Your task to perform on an android device: Clear the cart on target. Search for "macbook air" on target, select the first entry, add it to the cart, then select checkout. Image 0: 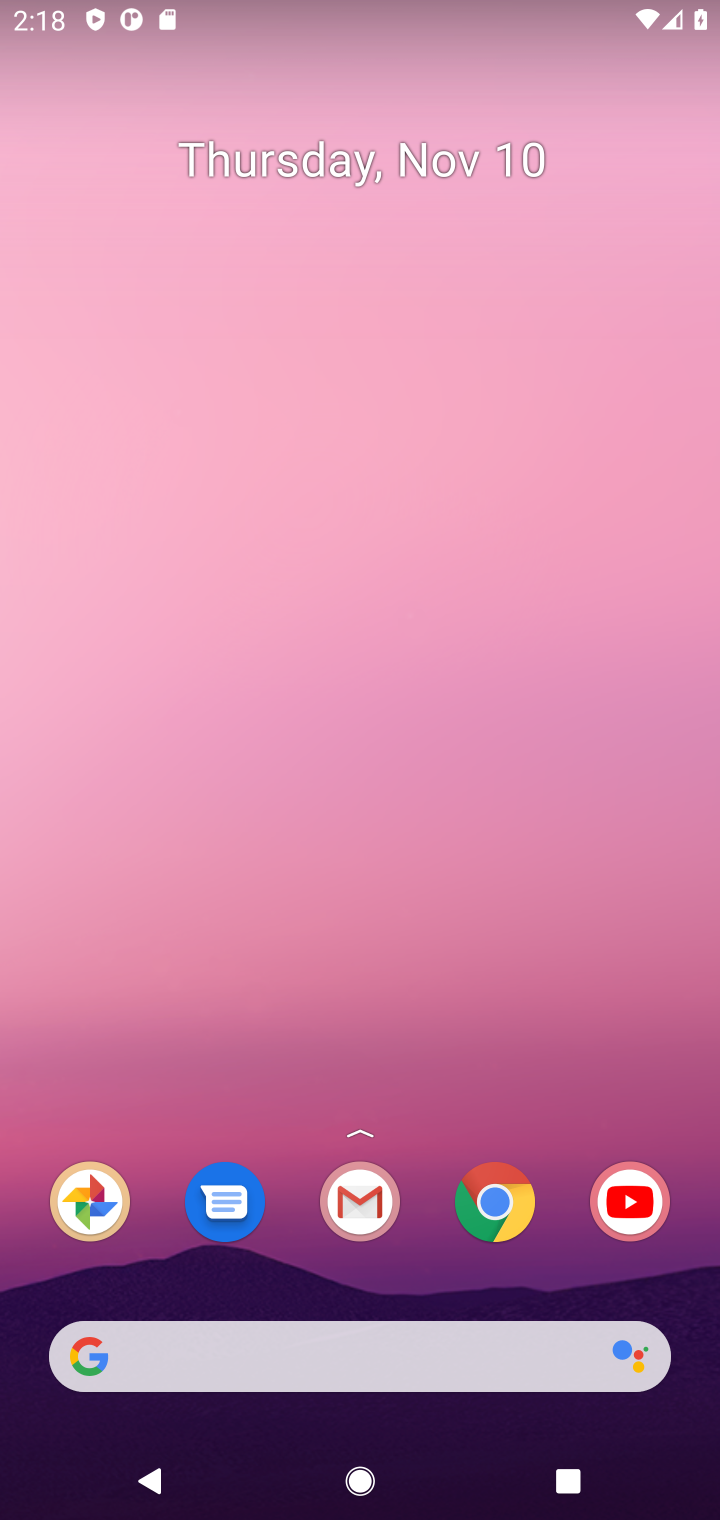
Step 0: click (483, 1211)
Your task to perform on an android device: Clear the cart on target. Search for "macbook air" on target, select the first entry, add it to the cart, then select checkout. Image 1: 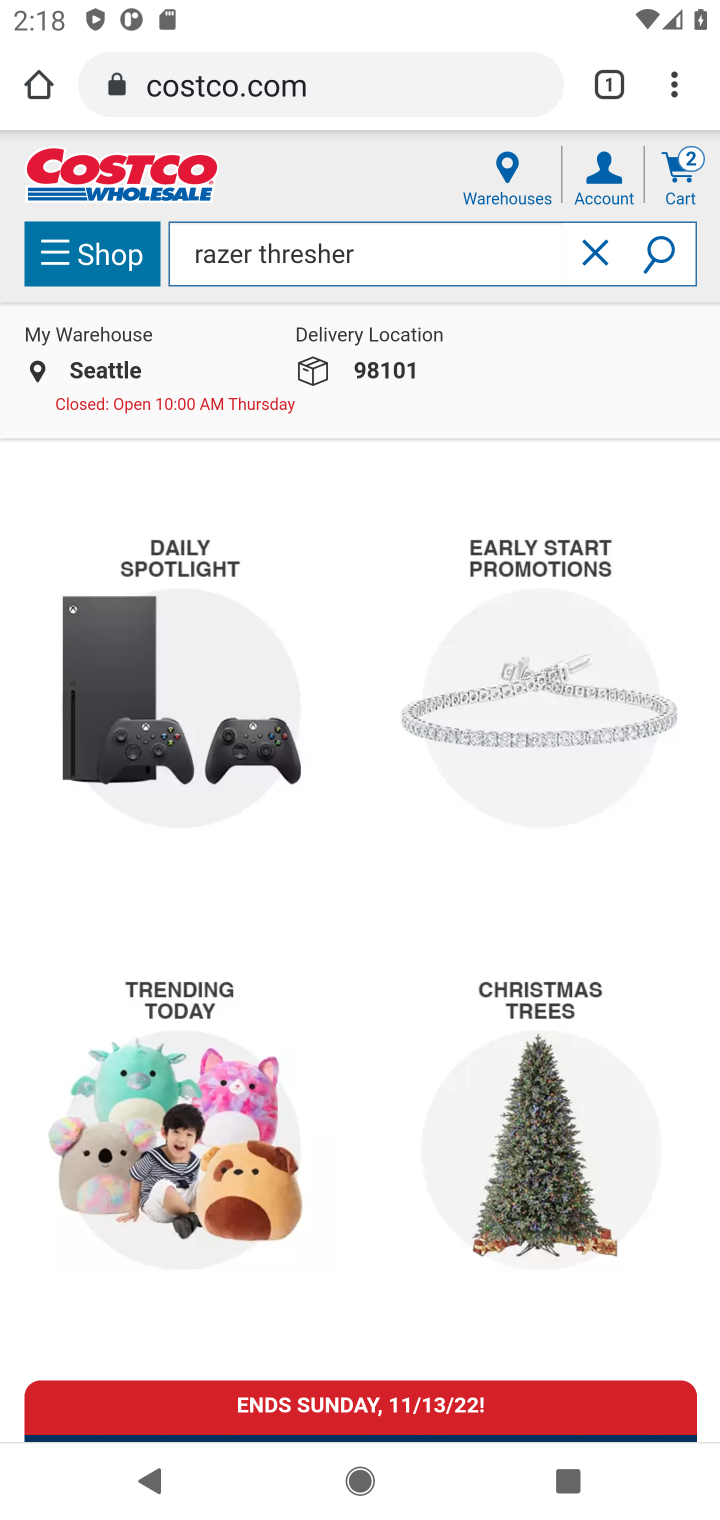
Step 1: click (312, 84)
Your task to perform on an android device: Clear the cart on target. Search for "macbook air" on target, select the first entry, add it to the cart, then select checkout. Image 2: 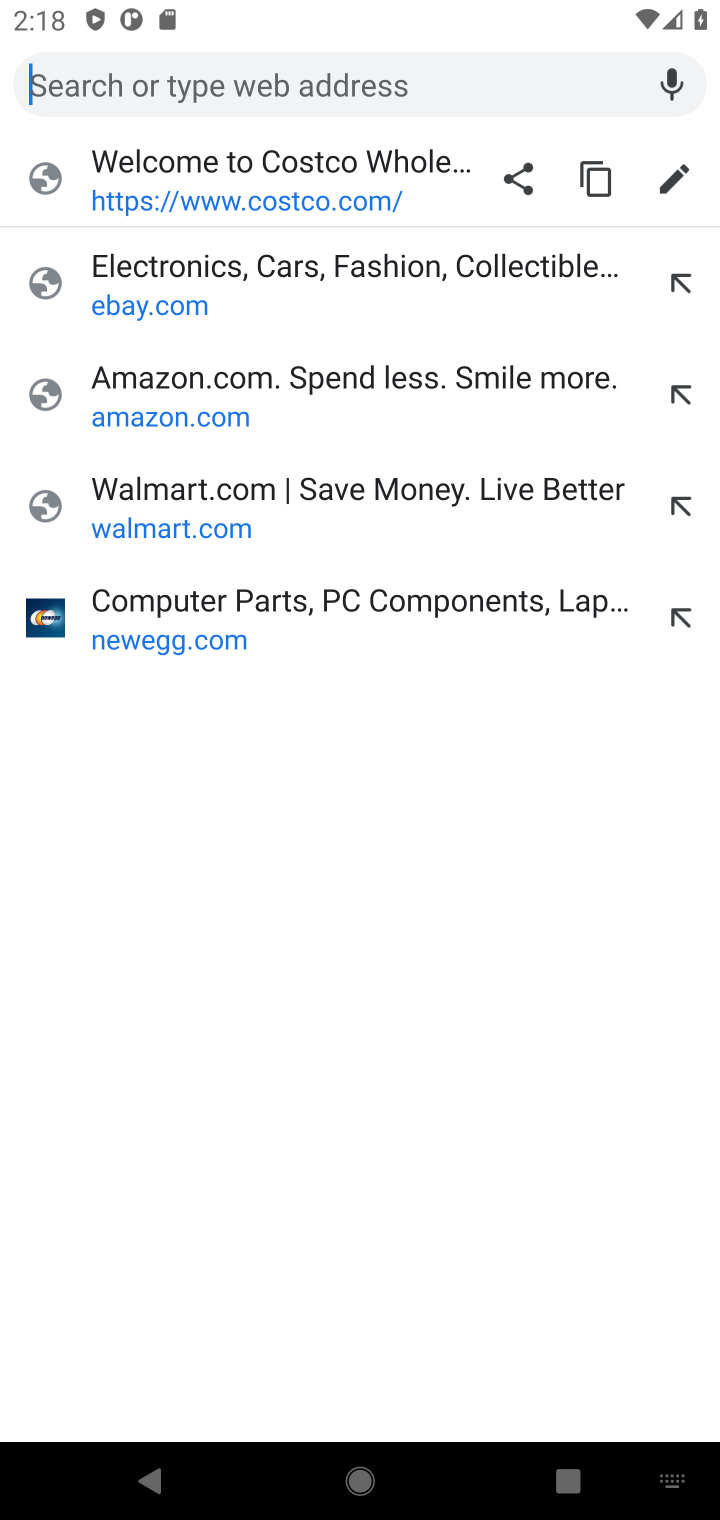
Step 2: type "target"
Your task to perform on an android device: Clear the cart on target. Search for "macbook air" on target, select the first entry, add it to the cart, then select checkout. Image 3: 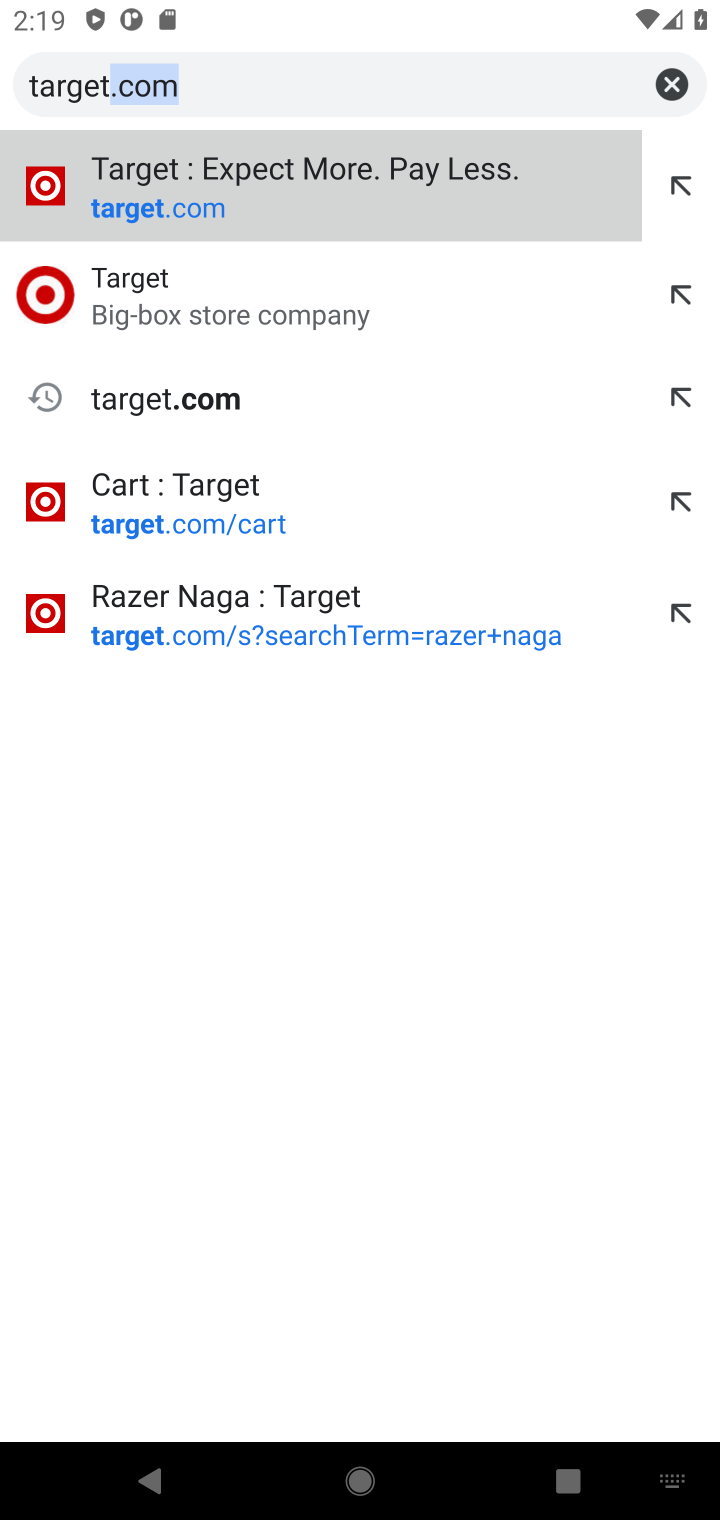
Step 3: click (208, 309)
Your task to perform on an android device: Clear the cart on target. Search for "macbook air" on target, select the first entry, add it to the cart, then select checkout. Image 4: 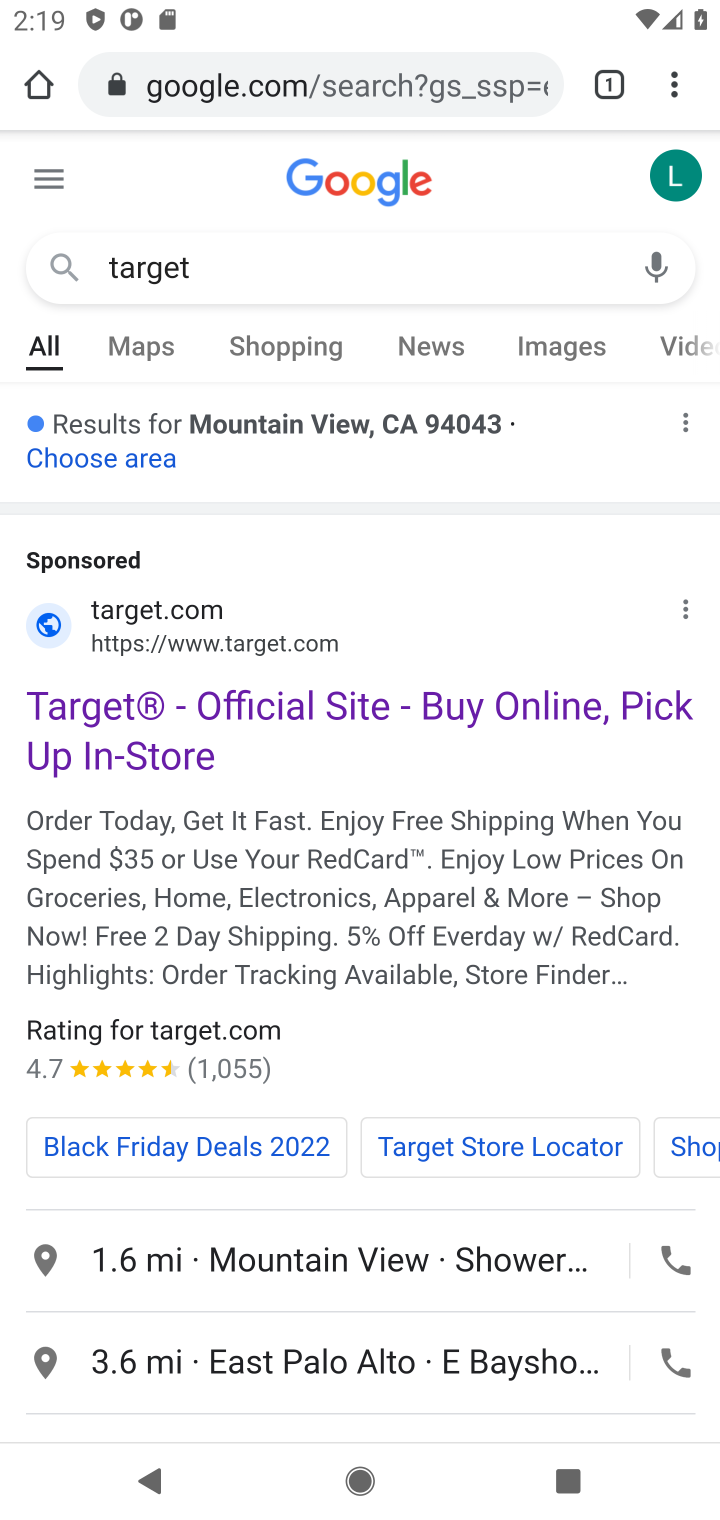
Step 4: click (230, 635)
Your task to perform on an android device: Clear the cart on target. Search for "macbook air" on target, select the first entry, add it to the cart, then select checkout. Image 5: 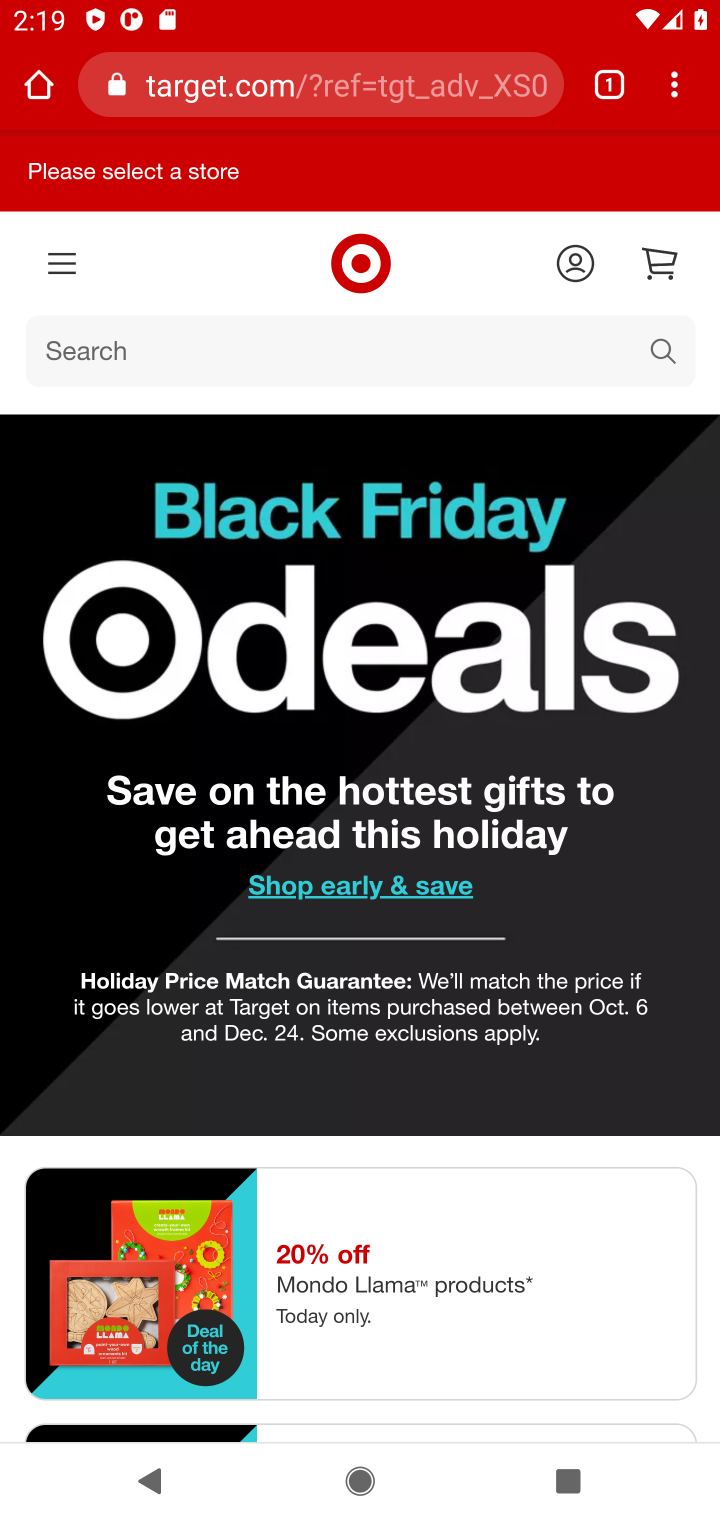
Step 5: click (662, 261)
Your task to perform on an android device: Clear the cart on target. Search for "macbook air" on target, select the first entry, add it to the cart, then select checkout. Image 6: 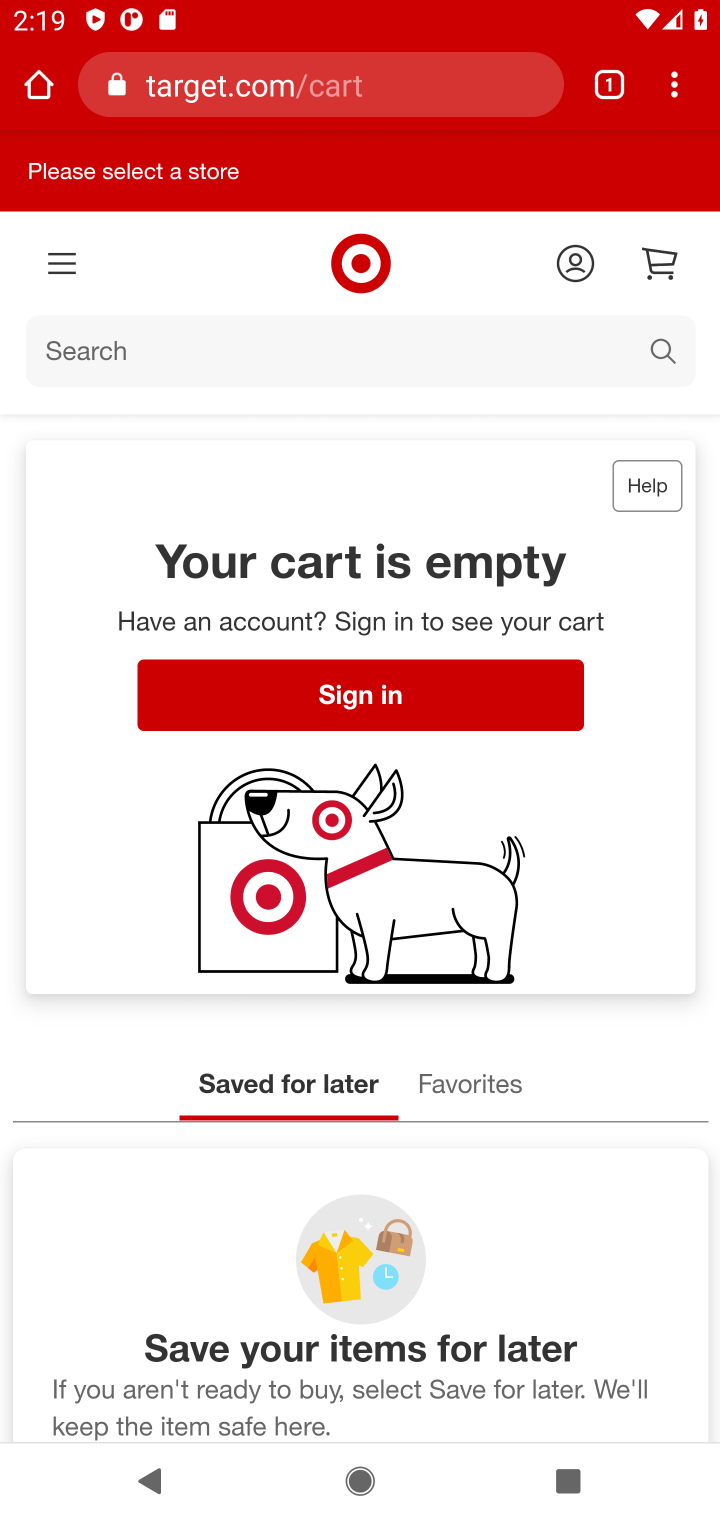
Step 6: click (653, 338)
Your task to perform on an android device: Clear the cart on target. Search for "macbook air" on target, select the first entry, add it to the cart, then select checkout. Image 7: 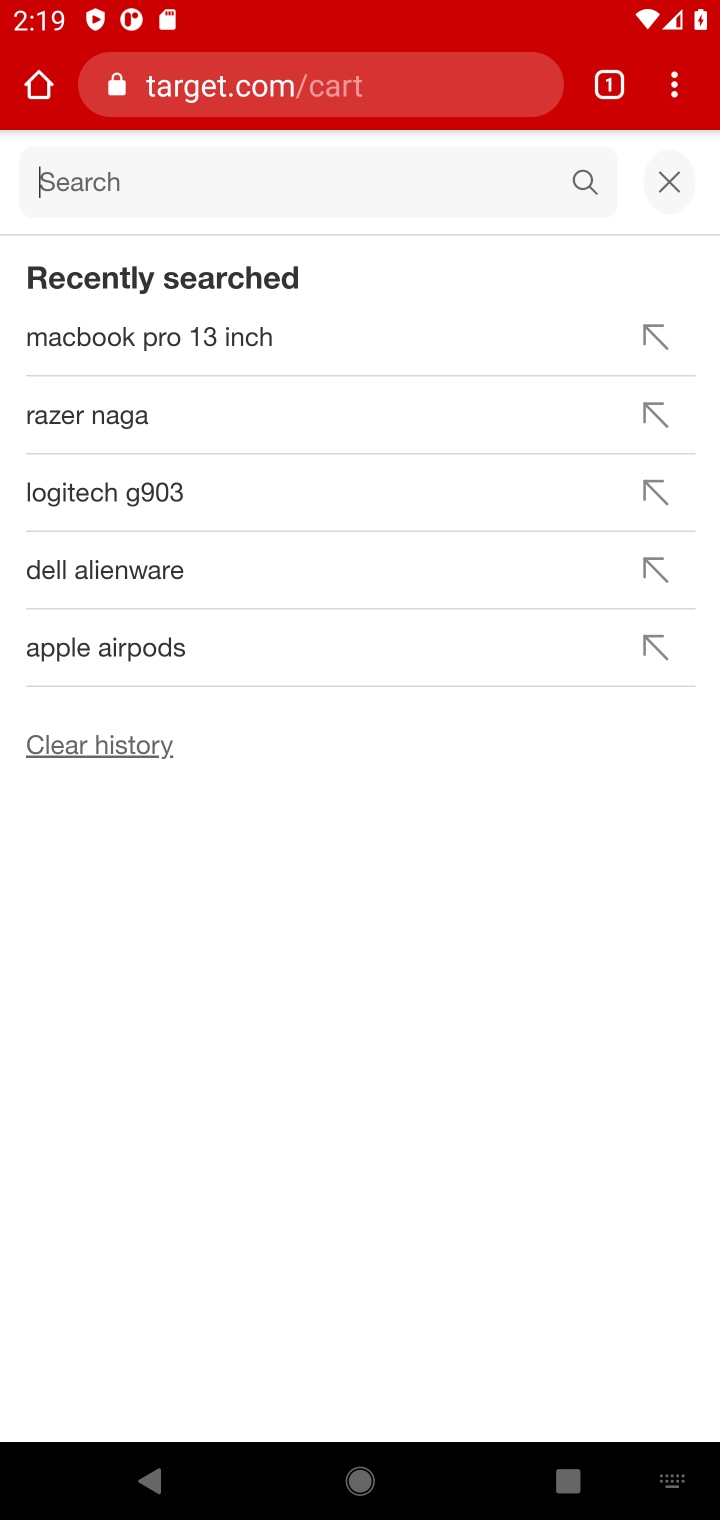
Step 7: type "macbook air"
Your task to perform on an android device: Clear the cart on target. Search for "macbook air" on target, select the first entry, add it to the cart, then select checkout. Image 8: 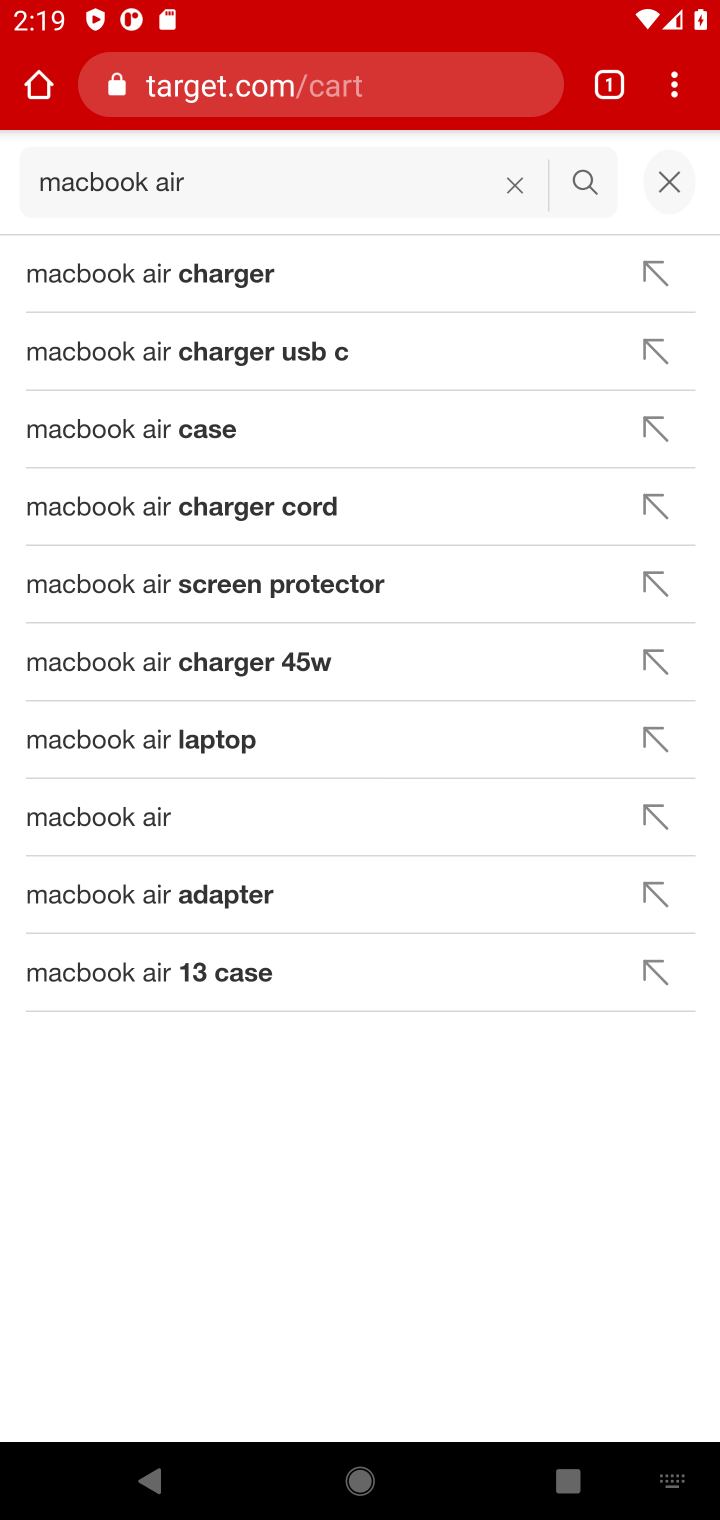
Step 8: click (146, 814)
Your task to perform on an android device: Clear the cart on target. Search for "macbook air" on target, select the first entry, add it to the cart, then select checkout. Image 9: 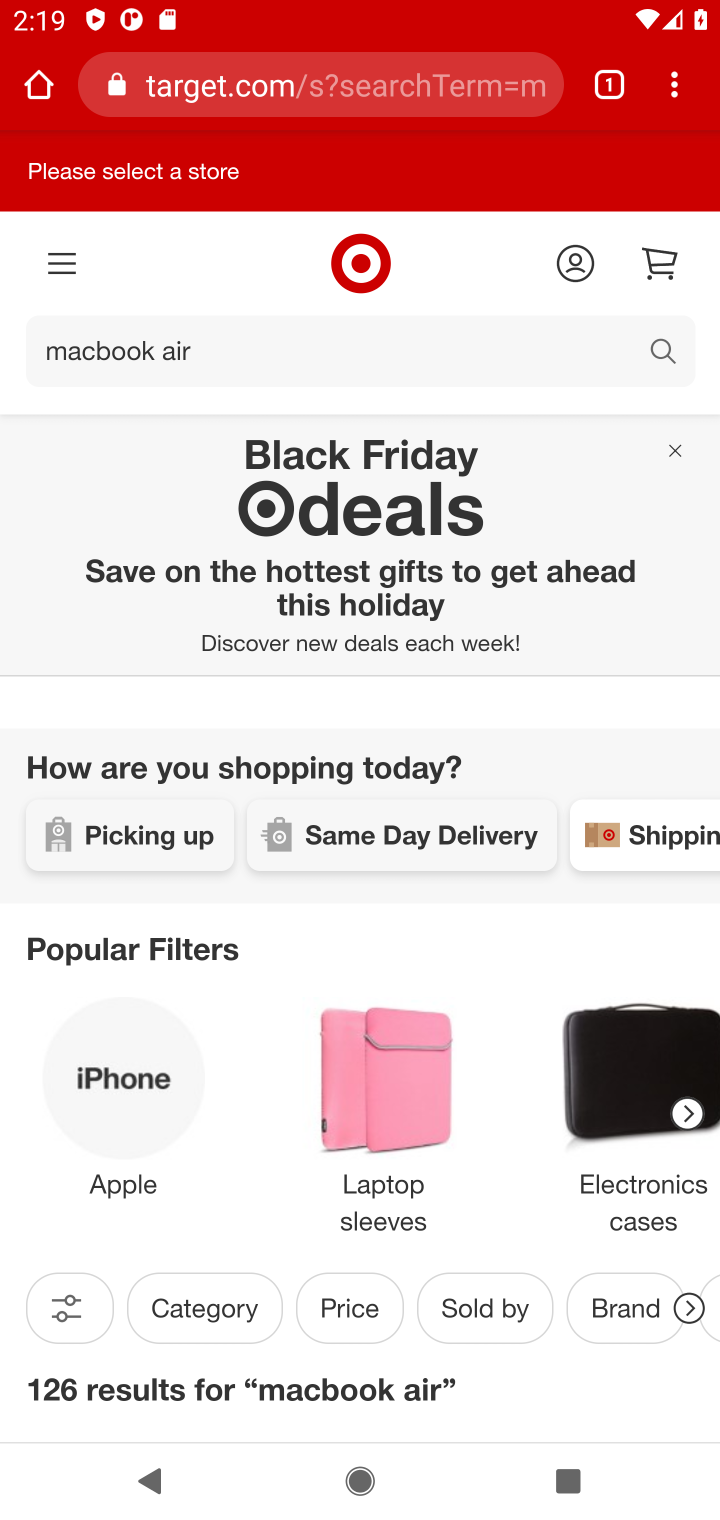
Step 9: task complete